Your task to perform on an android device: Open privacy settings Image 0: 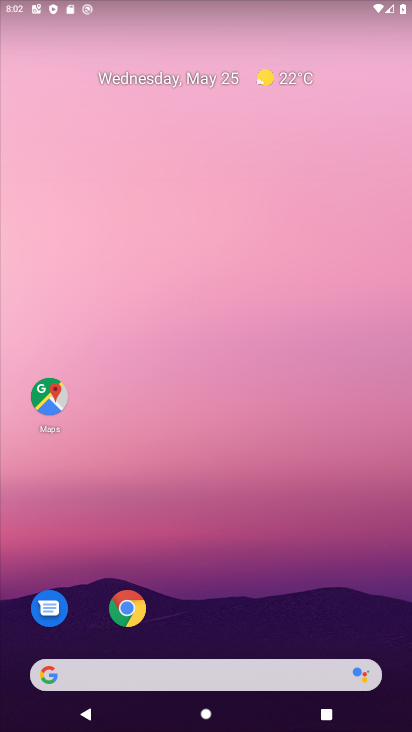
Step 0: drag from (291, 607) to (249, 133)
Your task to perform on an android device: Open privacy settings Image 1: 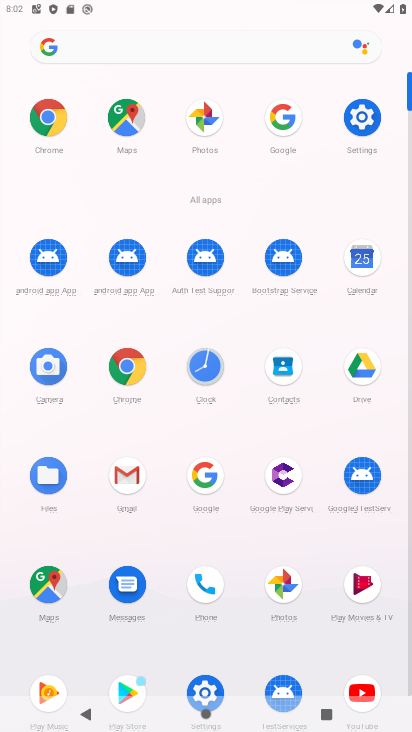
Step 1: click (366, 117)
Your task to perform on an android device: Open privacy settings Image 2: 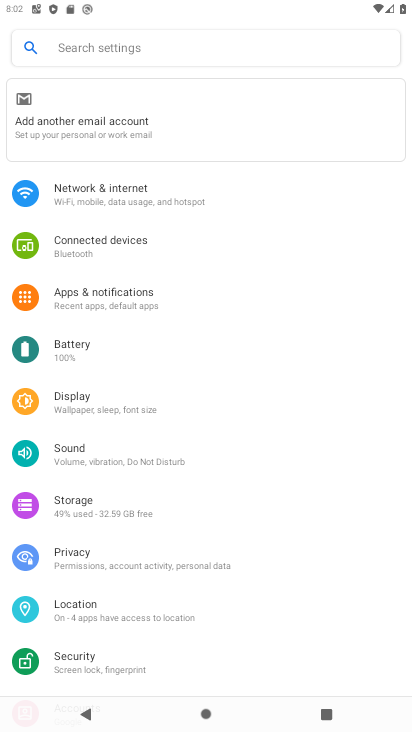
Step 2: click (87, 563)
Your task to perform on an android device: Open privacy settings Image 3: 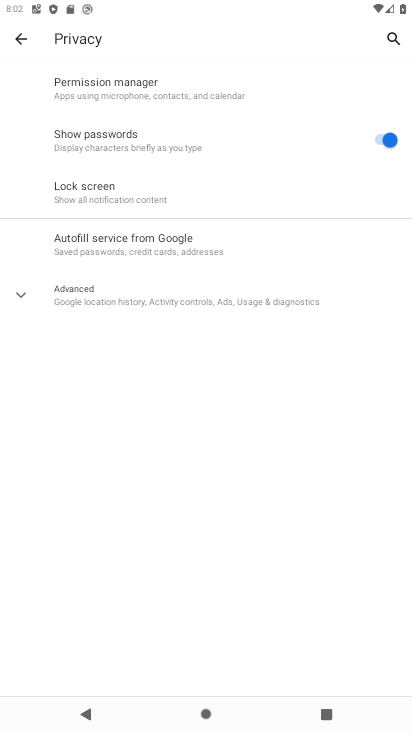
Step 3: task complete